Your task to perform on an android device: check out phone information Image 0: 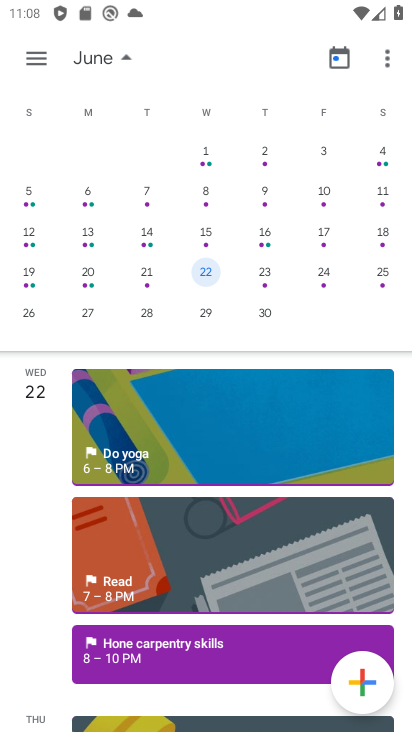
Step 0: press back button
Your task to perform on an android device: check out phone information Image 1: 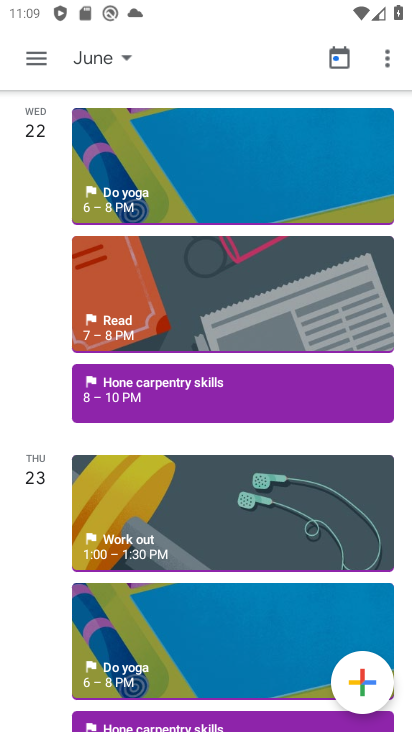
Step 1: press home button
Your task to perform on an android device: check out phone information Image 2: 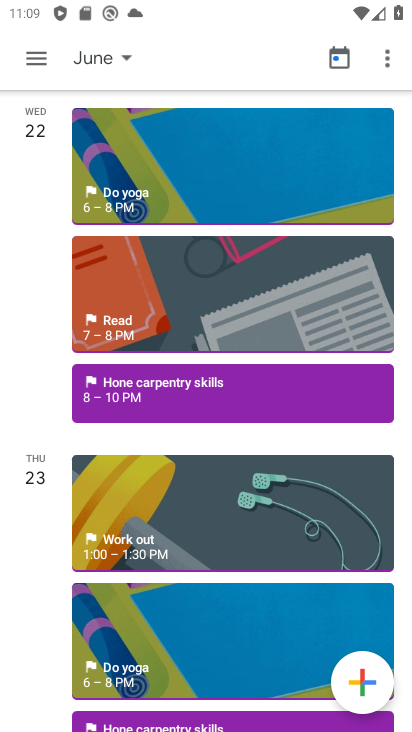
Step 2: press home button
Your task to perform on an android device: check out phone information Image 3: 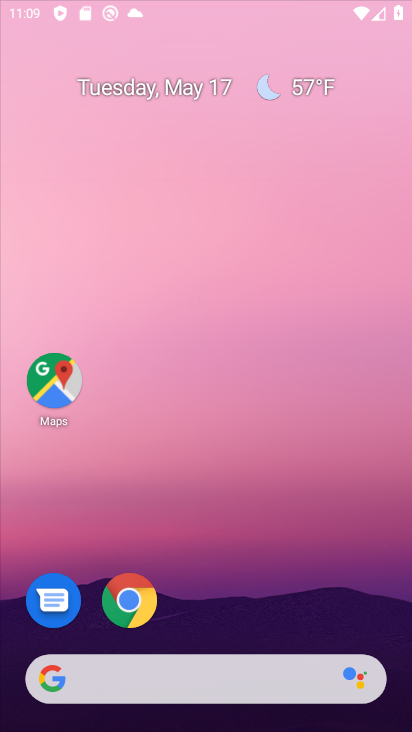
Step 3: press home button
Your task to perform on an android device: check out phone information Image 4: 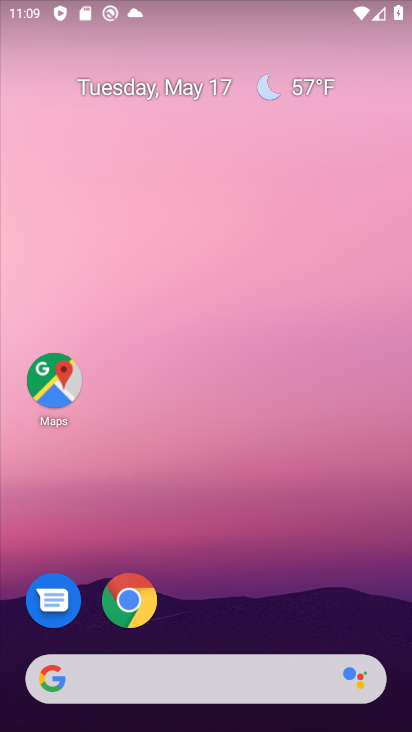
Step 4: drag from (185, 592) to (79, 19)
Your task to perform on an android device: check out phone information Image 5: 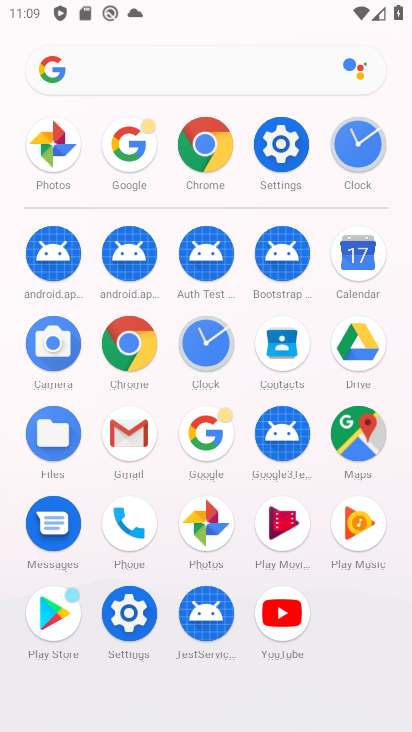
Step 5: click (291, 140)
Your task to perform on an android device: check out phone information Image 6: 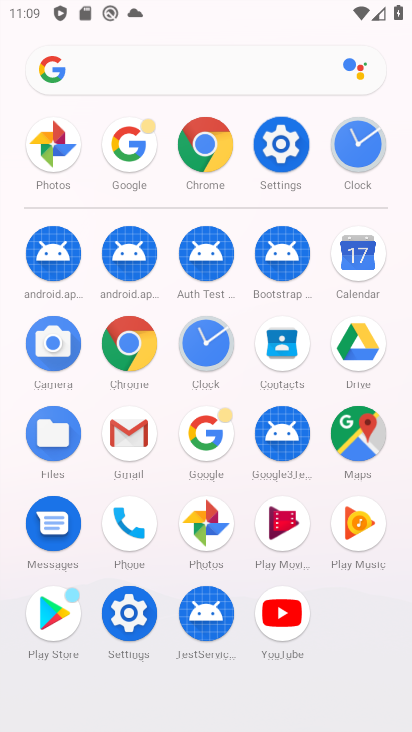
Step 6: click (291, 140)
Your task to perform on an android device: check out phone information Image 7: 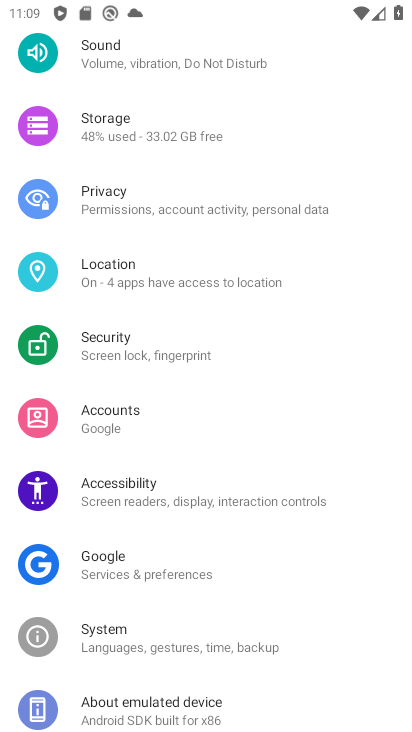
Step 7: click (290, 140)
Your task to perform on an android device: check out phone information Image 8: 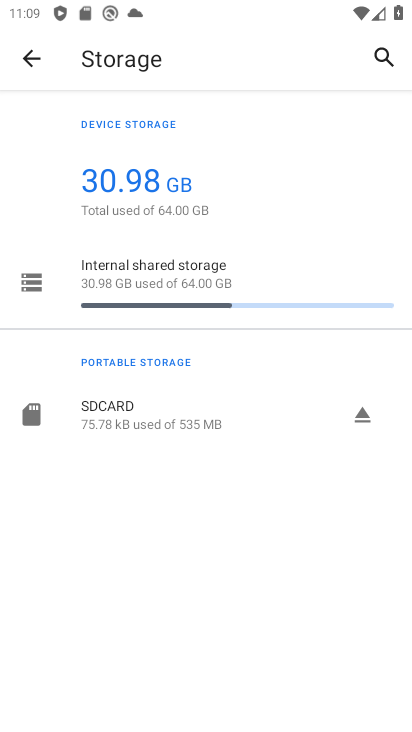
Step 8: click (25, 60)
Your task to perform on an android device: check out phone information Image 9: 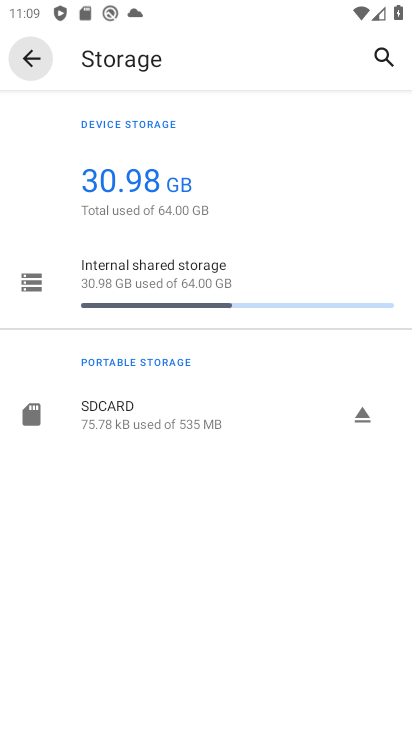
Step 9: click (25, 60)
Your task to perform on an android device: check out phone information Image 10: 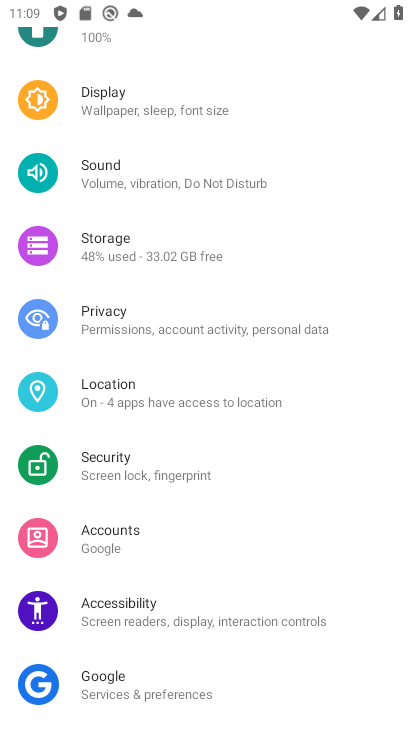
Step 10: drag from (156, 569) to (120, 86)
Your task to perform on an android device: check out phone information Image 11: 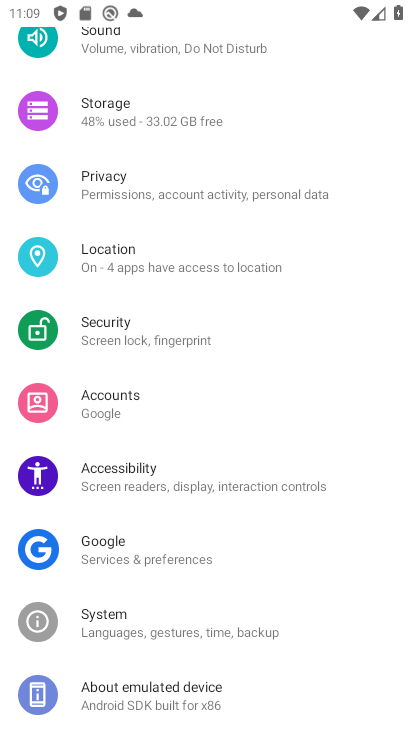
Step 11: click (161, 694)
Your task to perform on an android device: check out phone information Image 12: 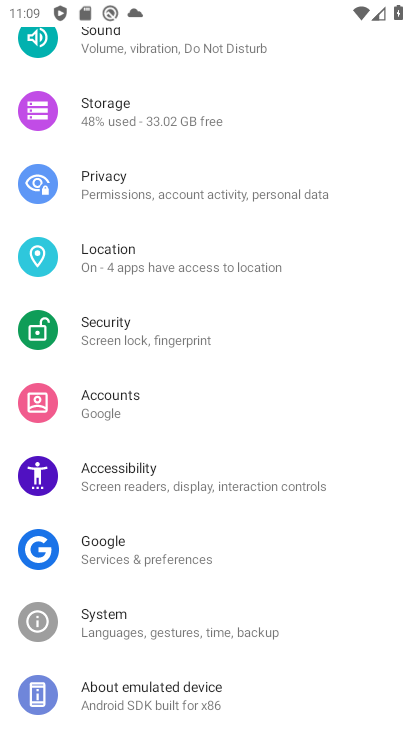
Step 12: click (143, 688)
Your task to perform on an android device: check out phone information Image 13: 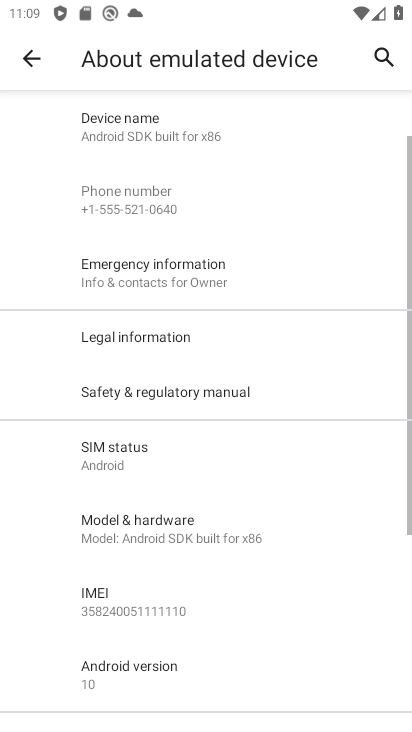
Step 13: click (143, 681)
Your task to perform on an android device: check out phone information Image 14: 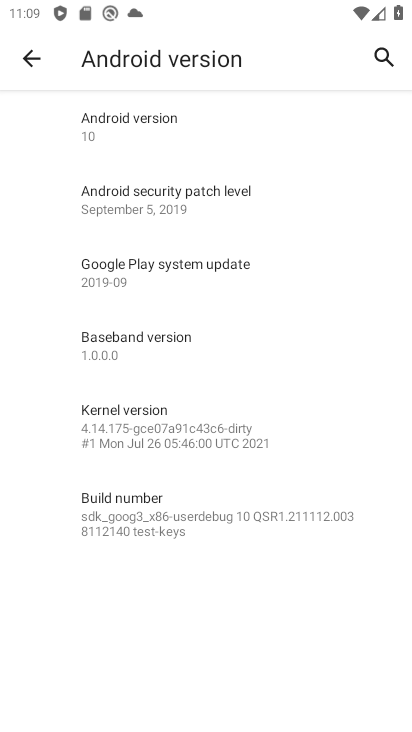
Step 14: click (26, 54)
Your task to perform on an android device: check out phone information Image 15: 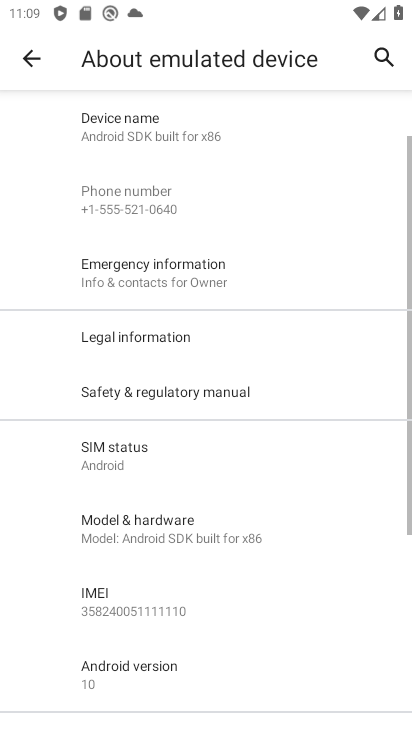
Step 15: task complete